Your task to perform on an android device: Open Chrome and go to settings Image 0: 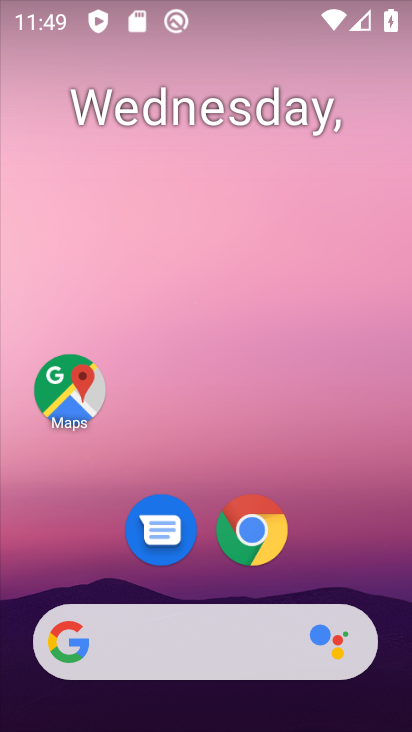
Step 0: click (259, 559)
Your task to perform on an android device: Open Chrome and go to settings Image 1: 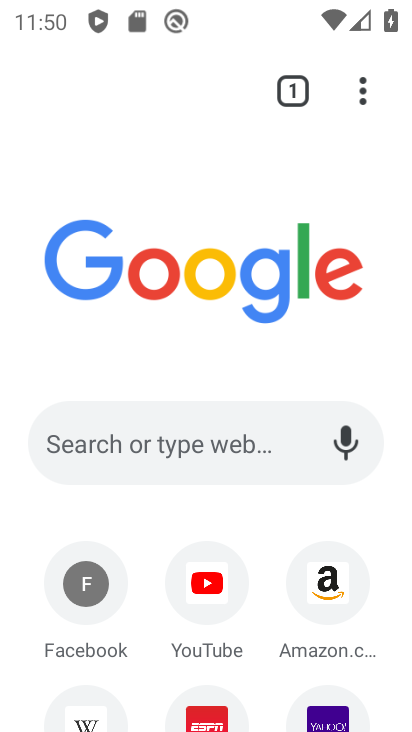
Step 1: task complete